Your task to perform on an android device: Go to privacy settings Image 0: 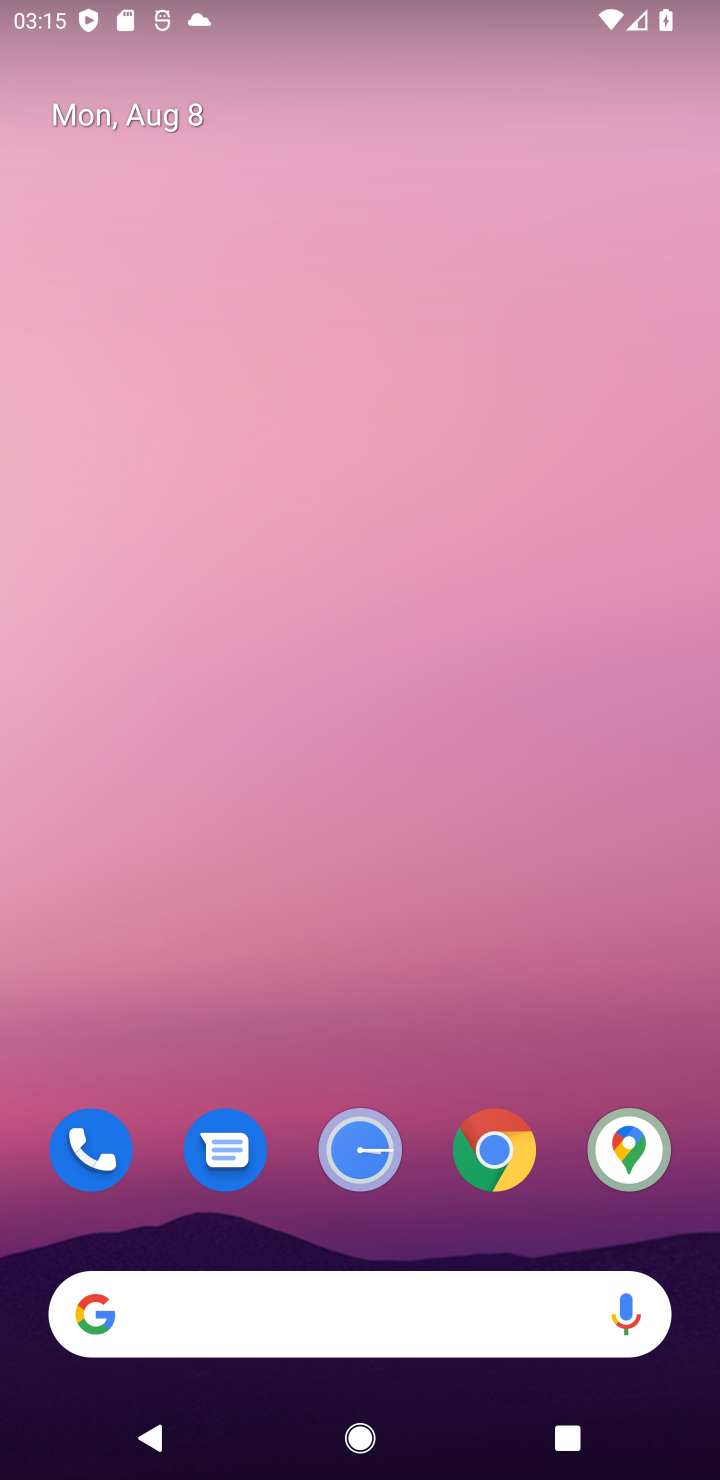
Step 0: drag from (326, 815) to (424, 633)
Your task to perform on an android device: Go to privacy settings Image 1: 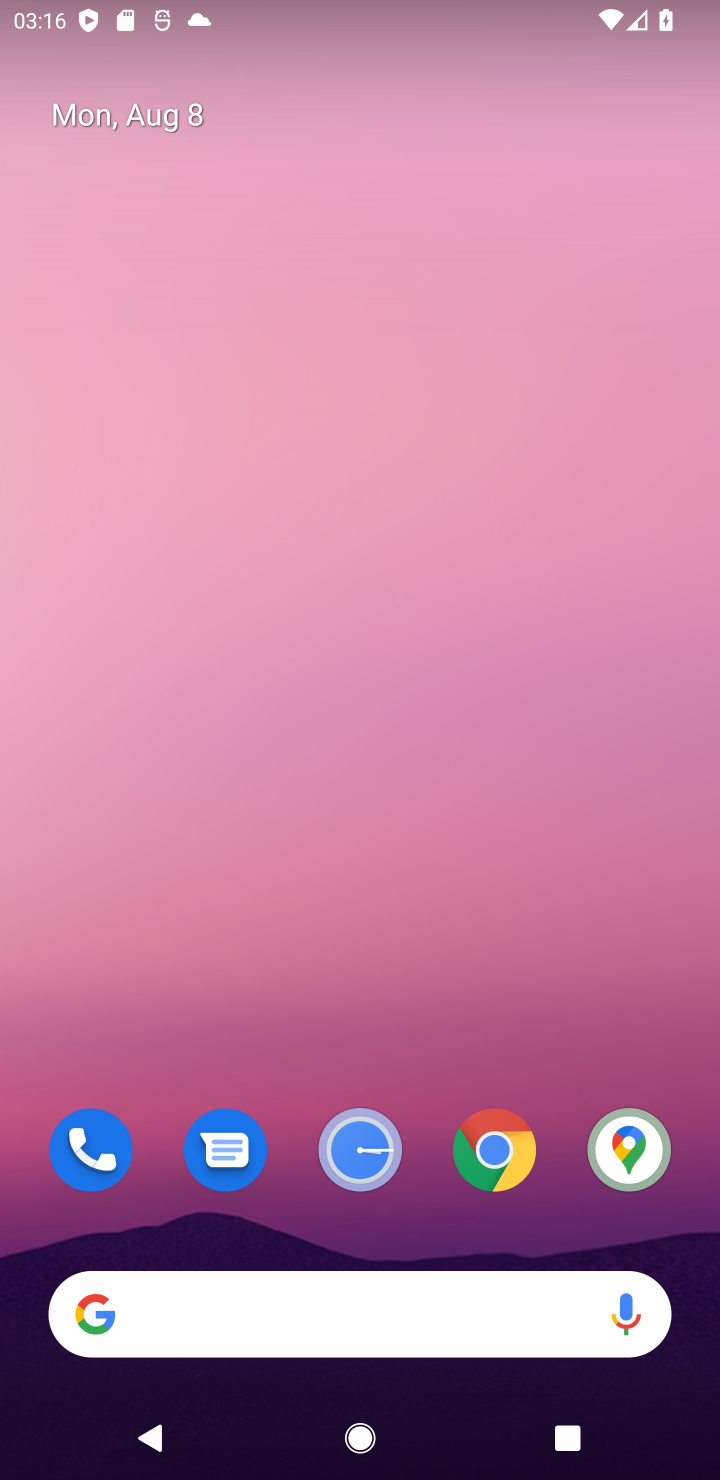
Step 1: drag from (32, 1414) to (321, 420)
Your task to perform on an android device: Go to privacy settings Image 2: 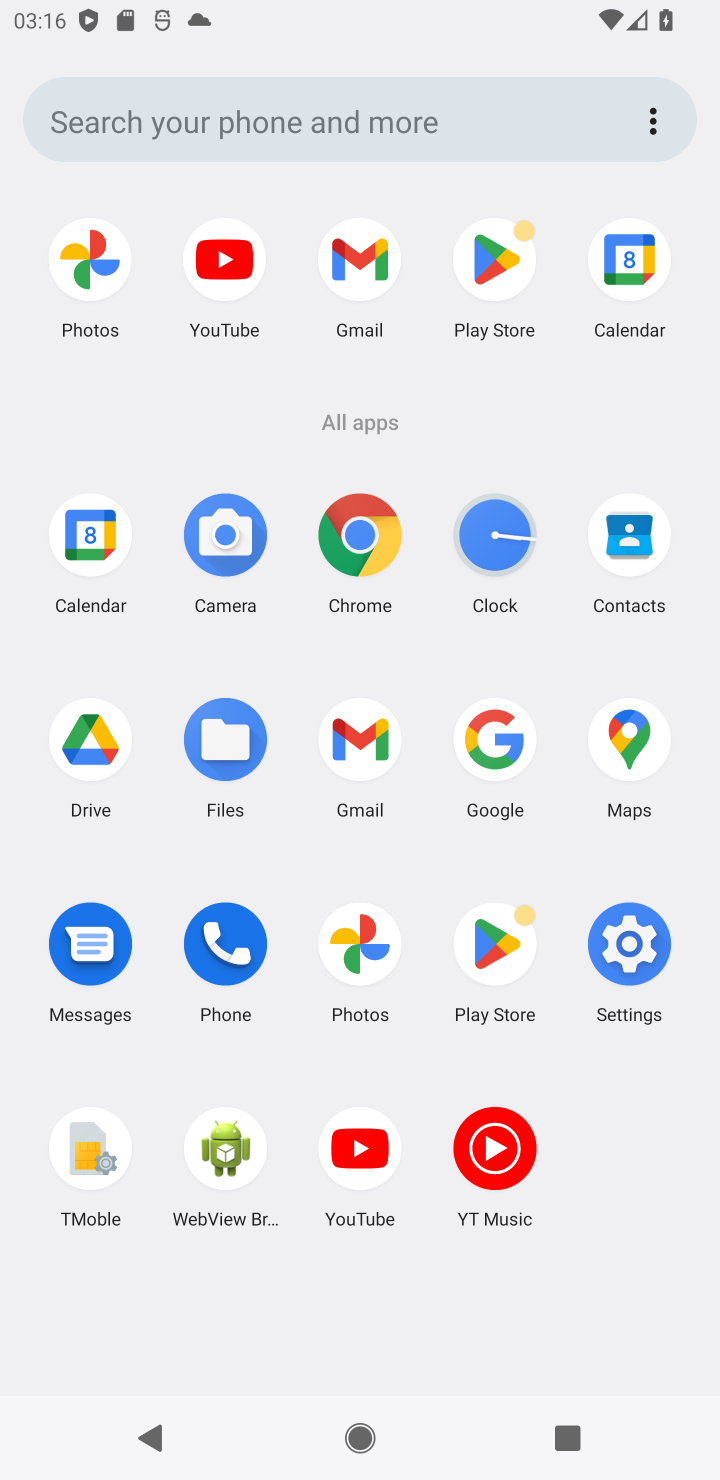
Step 2: click (624, 982)
Your task to perform on an android device: Go to privacy settings Image 3: 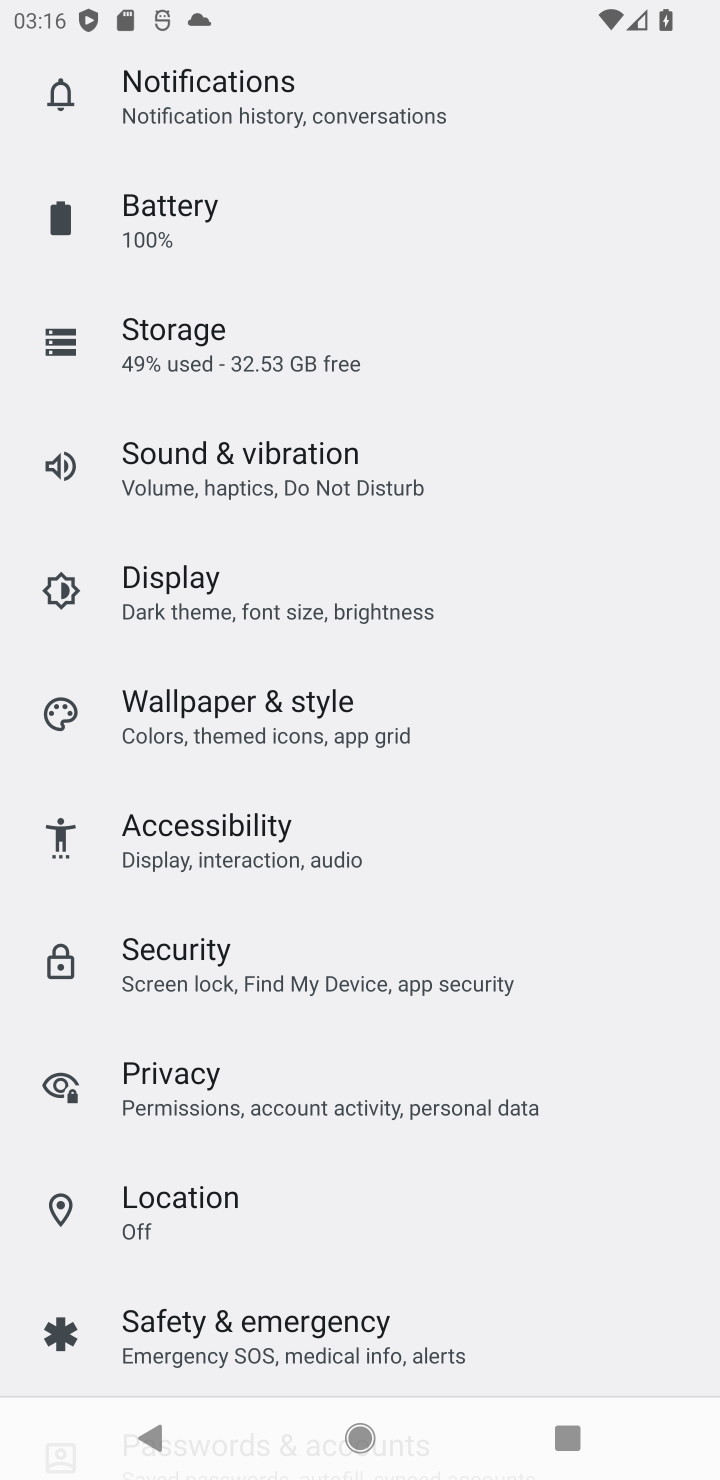
Step 3: click (226, 1074)
Your task to perform on an android device: Go to privacy settings Image 4: 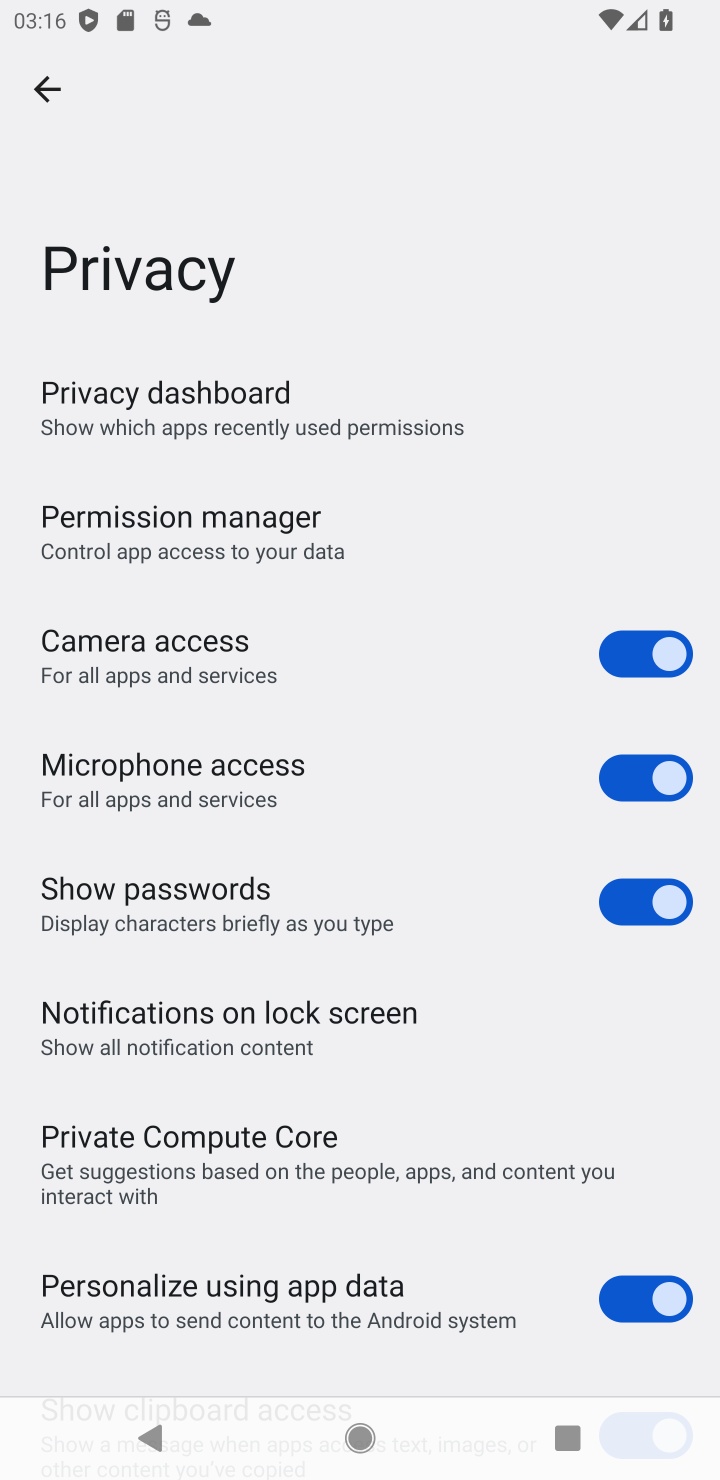
Step 4: task complete